Your task to perform on an android device: What's the weather? Image 0: 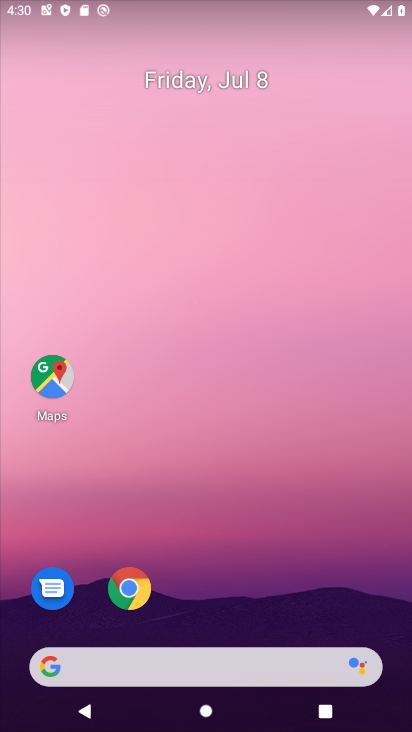
Step 0: click (202, 654)
Your task to perform on an android device: What's the weather? Image 1: 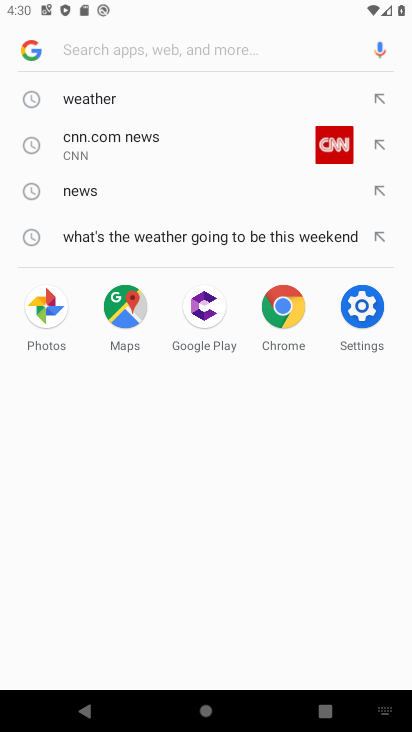
Step 1: click (94, 94)
Your task to perform on an android device: What's the weather? Image 2: 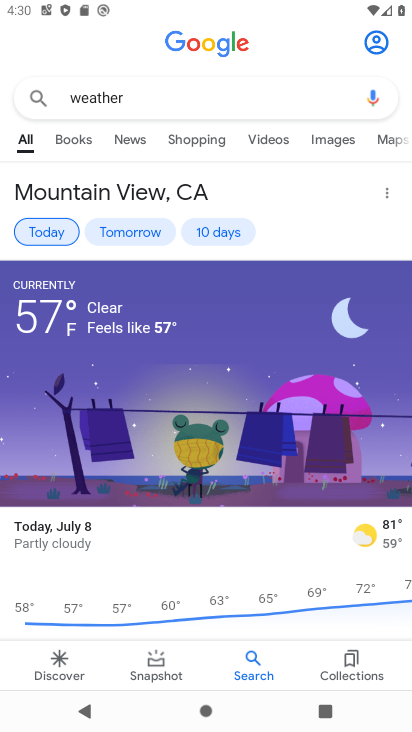
Step 2: task complete